Your task to perform on an android device: What's the weather? Image 0: 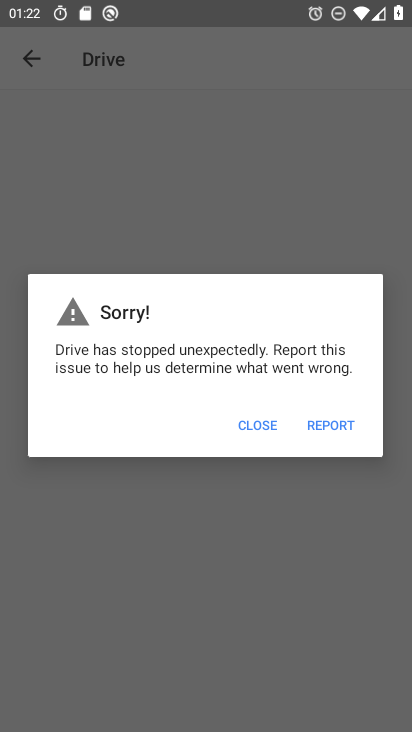
Step 0: press home button
Your task to perform on an android device: What's the weather? Image 1: 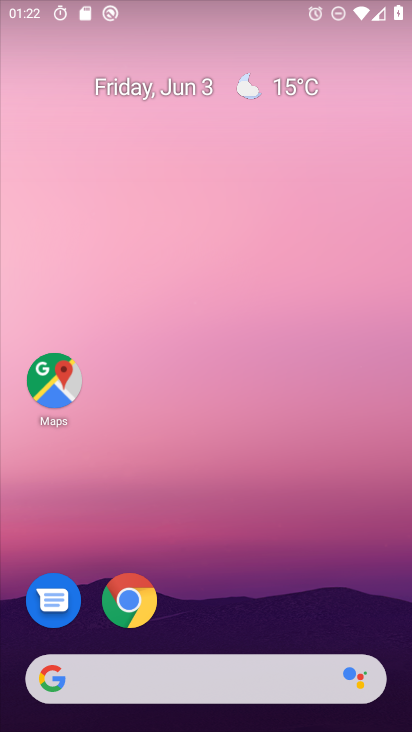
Step 1: drag from (189, 595) to (131, 53)
Your task to perform on an android device: What's the weather? Image 2: 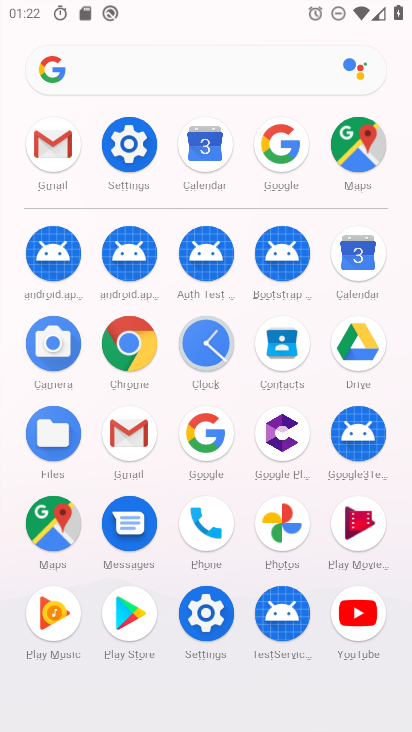
Step 2: click (206, 438)
Your task to perform on an android device: What's the weather? Image 3: 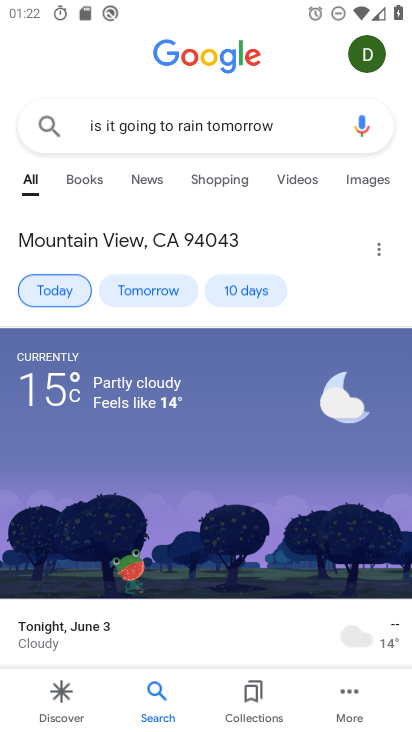
Step 3: click (276, 130)
Your task to perform on an android device: What's the weather? Image 4: 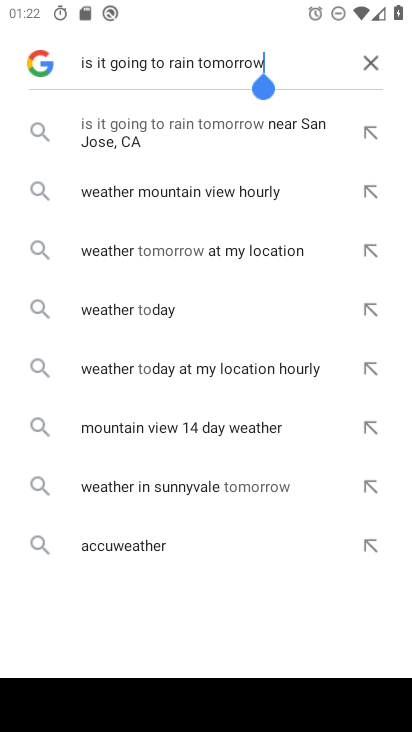
Step 4: click (359, 63)
Your task to perform on an android device: What's the weather? Image 5: 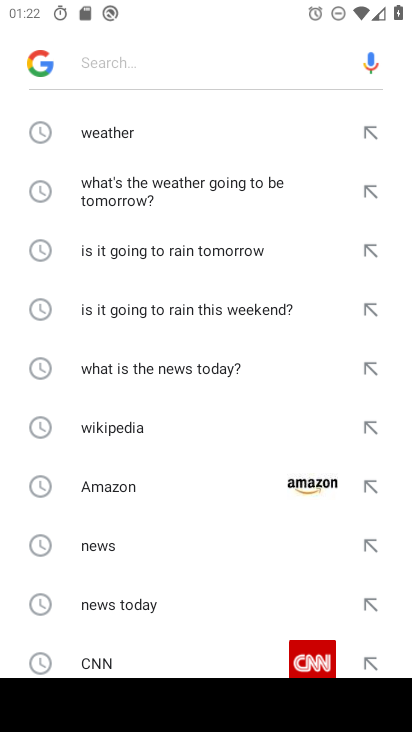
Step 5: click (130, 136)
Your task to perform on an android device: What's the weather? Image 6: 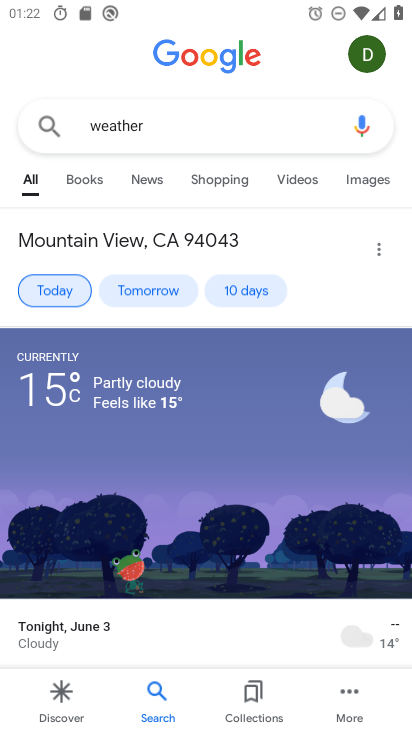
Step 6: task complete